Your task to perform on an android device: check battery use Image 0: 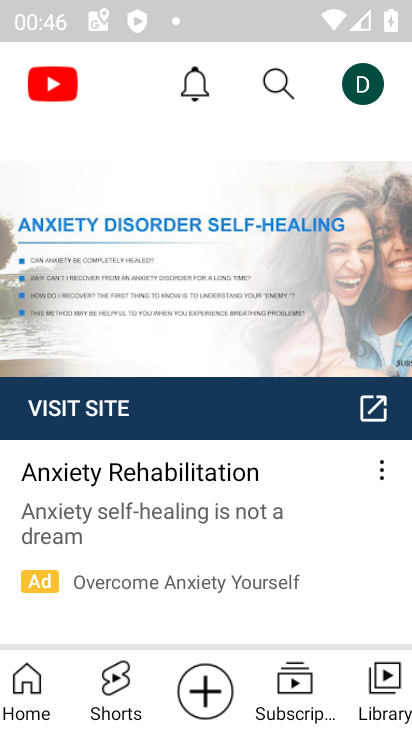
Step 0: press home button
Your task to perform on an android device: check battery use Image 1: 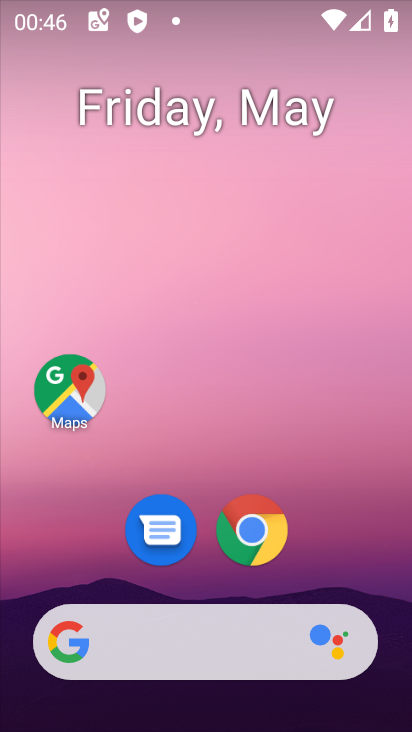
Step 1: drag from (330, 561) to (297, 80)
Your task to perform on an android device: check battery use Image 2: 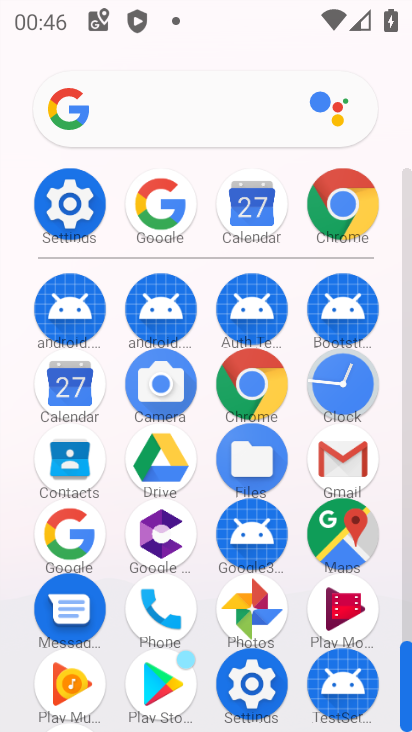
Step 2: click (251, 685)
Your task to perform on an android device: check battery use Image 3: 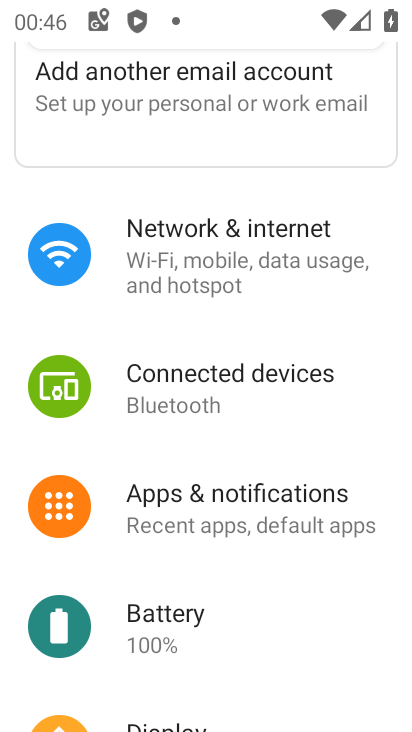
Step 3: drag from (183, 575) to (241, 438)
Your task to perform on an android device: check battery use Image 4: 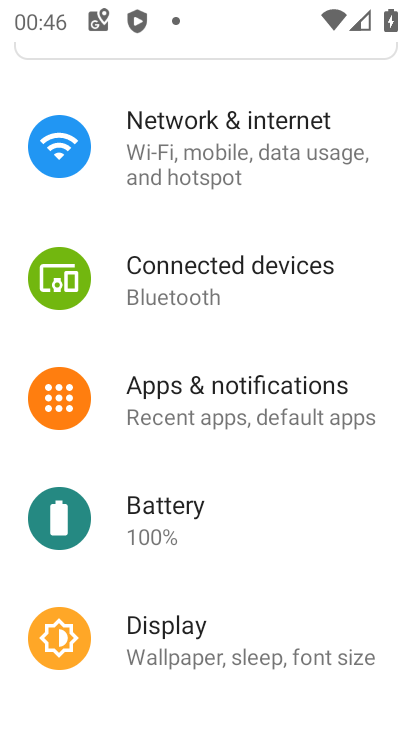
Step 4: click (176, 522)
Your task to perform on an android device: check battery use Image 5: 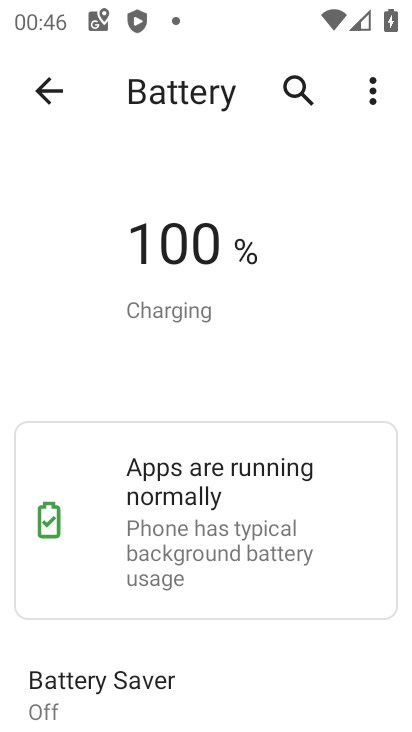
Step 5: click (377, 98)
Your task to perform on an android device: check battery use Image 6: 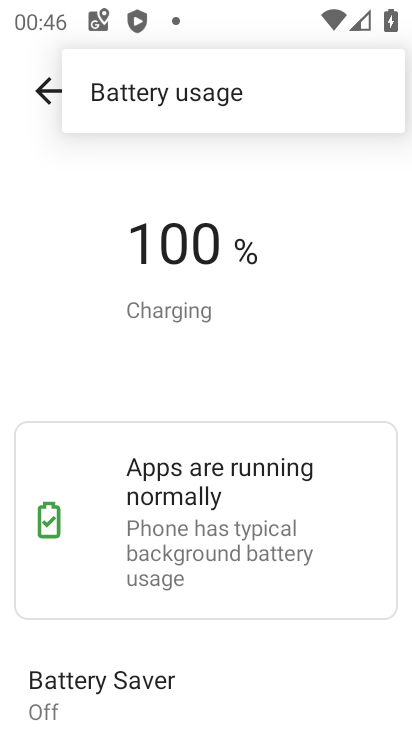
Step 6: click (191, 89)
Your task to perform on an android device: check battery use Image 7: 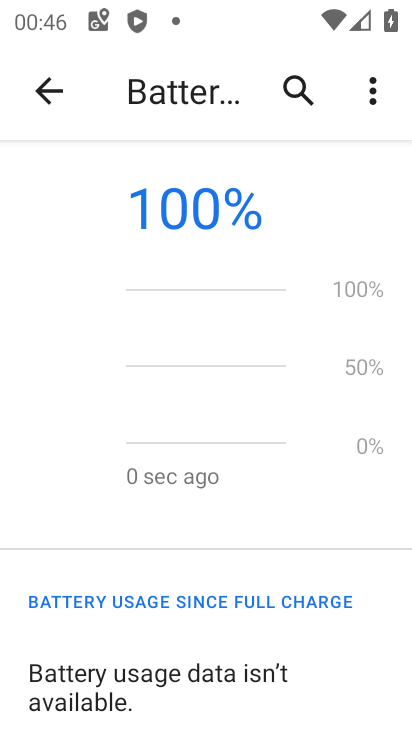
Step 7: task complete